Your task to perform on an android device: Open Chrome and go to settings Image 0: 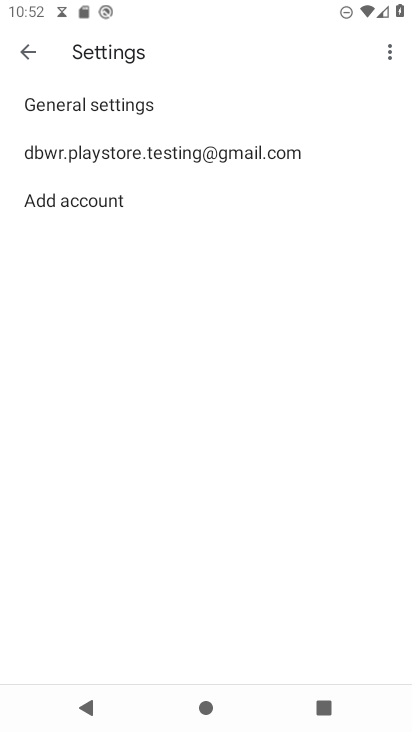
Step 0: press home button
Your task to perform on an android device: Open Chrome and go to settings Image 1: 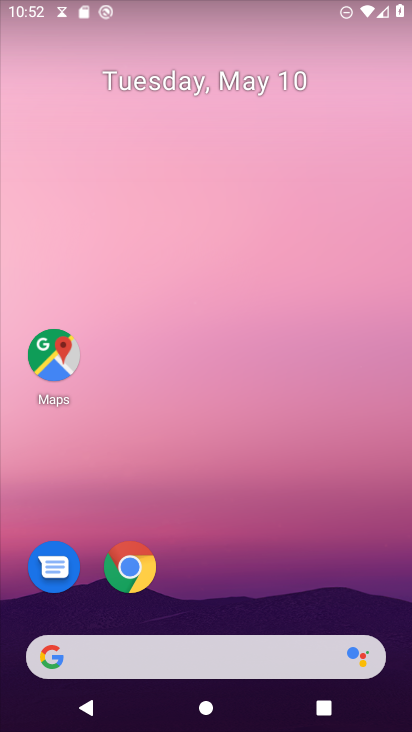
Step 1: click (118, 576)
Your task to perform on an android device: Open Chrome and go to settings Image 2: 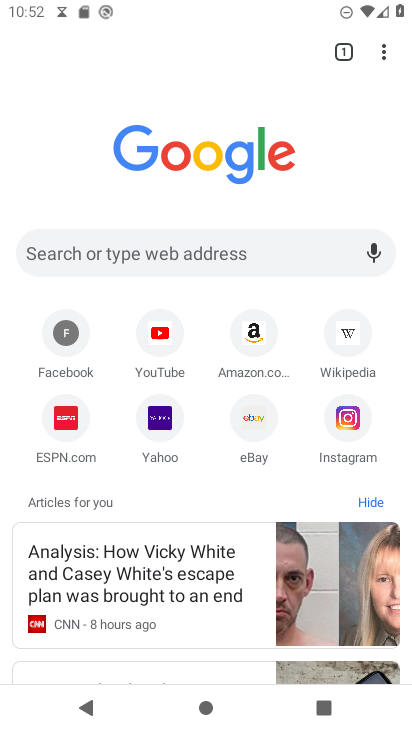
Step 2: click (385, 56)
Your task to perform on an android device: Open Chrome and go to settings Image 3: 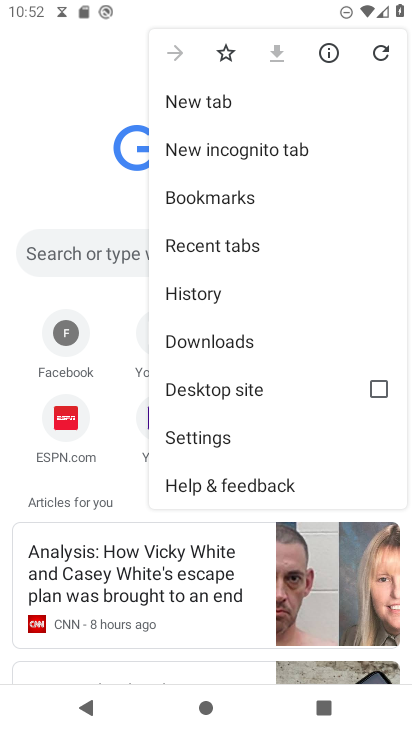
Step 3: click (248, 443)
Your task to perform on an android device: Open Chrome and go to settings Image 4: 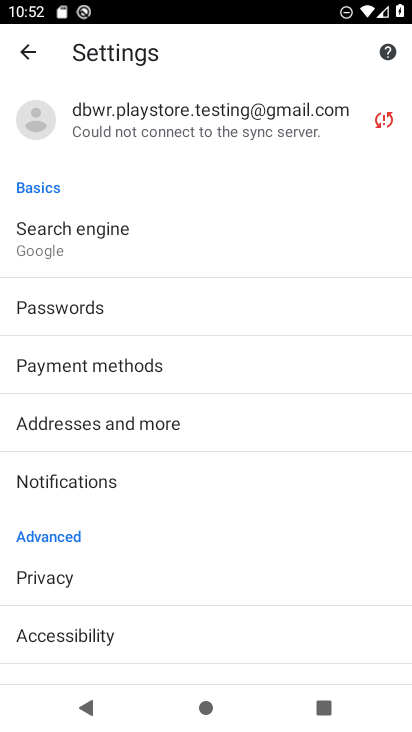
Step 4: task complete